Your task to perform on an android device: turn off airplane mode Image 0: 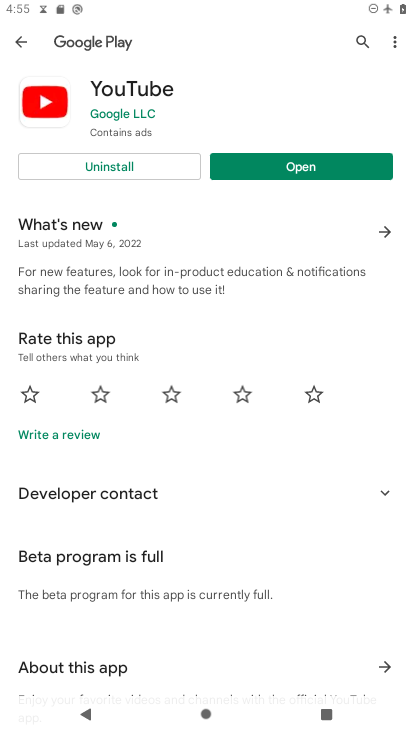
Step 0: press home button
Your task to perform on an android device: turn off airplane mode Image 1: 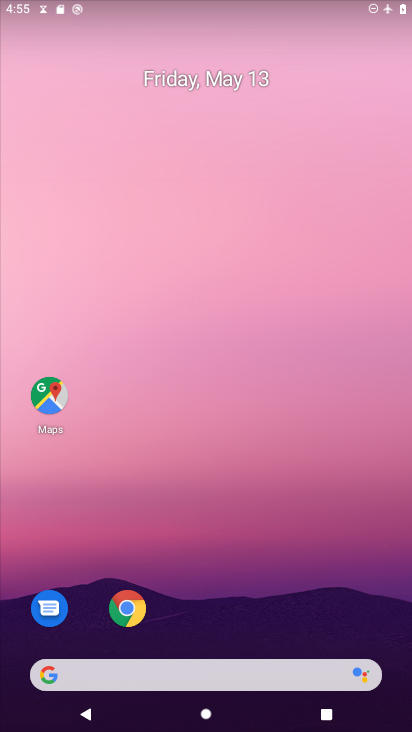
Step 1: drag from (257, 662) to (399, 648)
Your task to perform on an android device: turn off airplane mode Image 2: 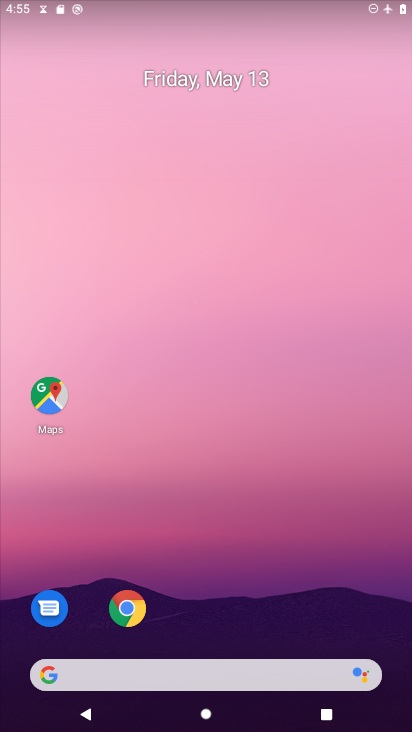
Step 2: drag from (273, 646) to (305, 7)
Your task to perform on an android device: turn off airplane mode Image 3: 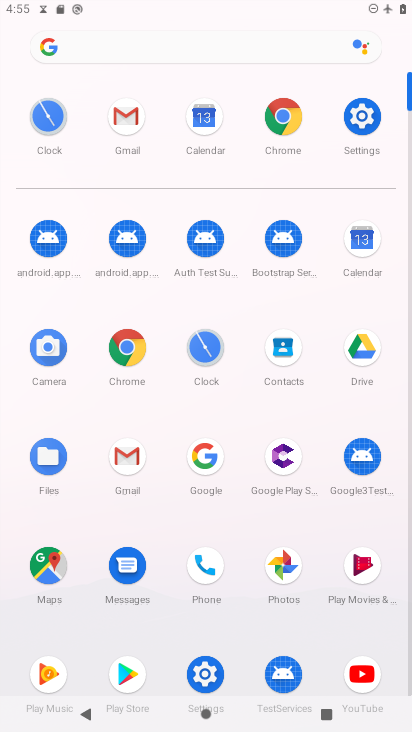
Step 3: click (359, 117)
Your task to perform on an android device: turn off airplane mode Image 4: 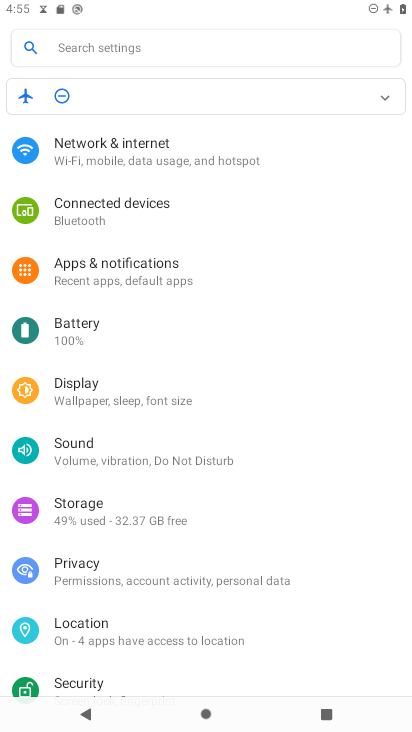
Step 4: click (134, 159)
Your task to perform on an android device: turn off airplane mode Image 5: 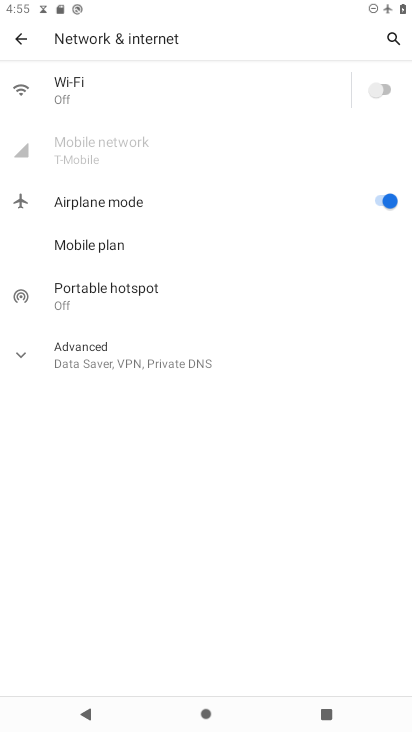
Step 5: click (381, 197)
Your task to perform on an android device: turn off airplane mode Image 6: 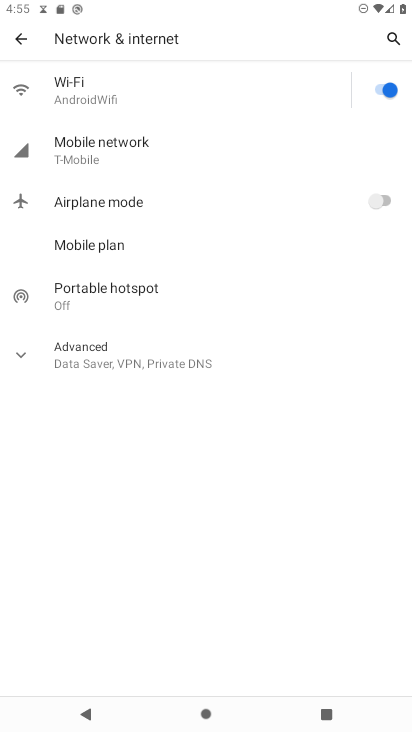
Step 6: task complete